Your task to perform on an android device: clear history in the chrome app Image 0: 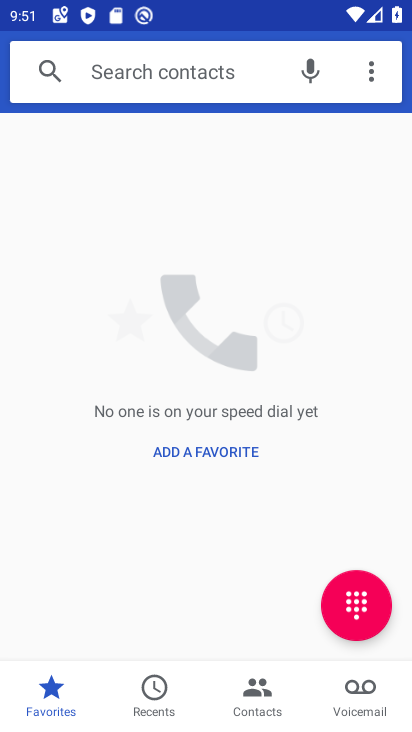
Step 0: press home button
Your task to perform on an android device: clear history in the chrome app Image 1: 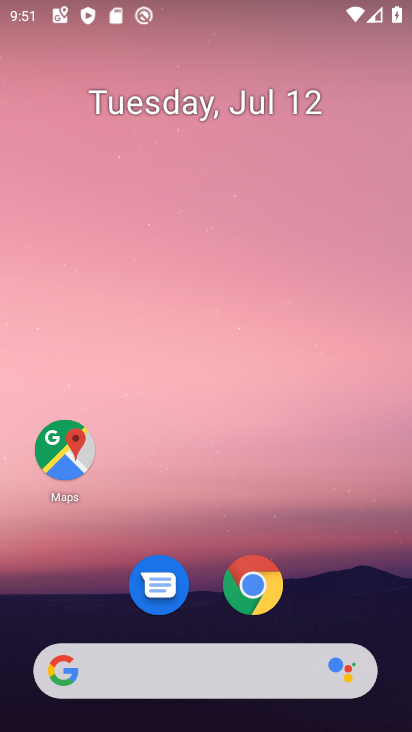
Step 1: click (241, 594)
Your task to perform on an android device: clear history in the chrome app Image 2: 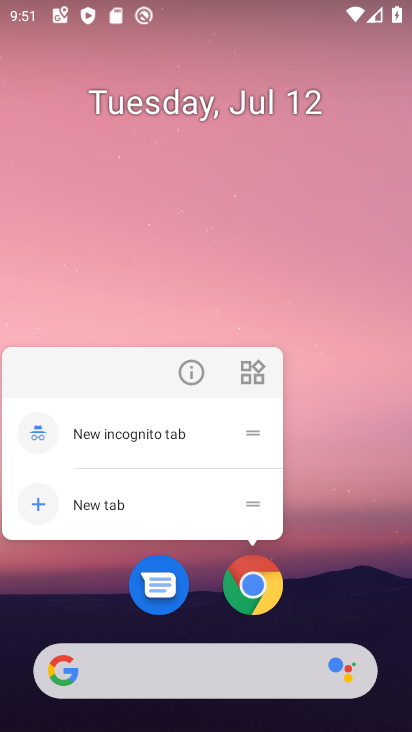
Step 2: click (246, 590)
Your task to perform on an android device: clear history in the chrome app Image 3: 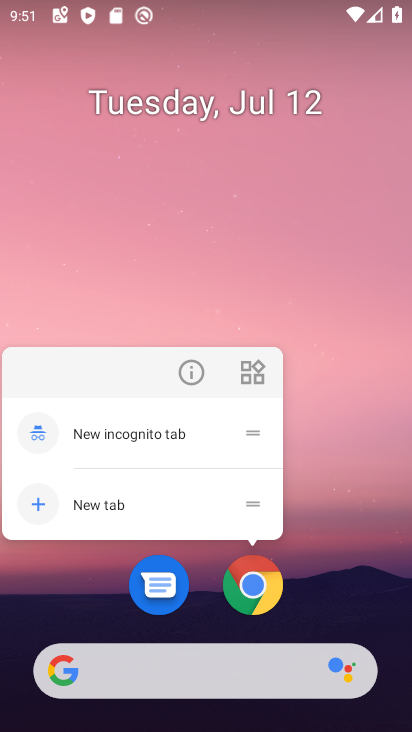
Step 3: click (252, 589)
Your task to perform on an android device: clear history in the chrome app Image 4: 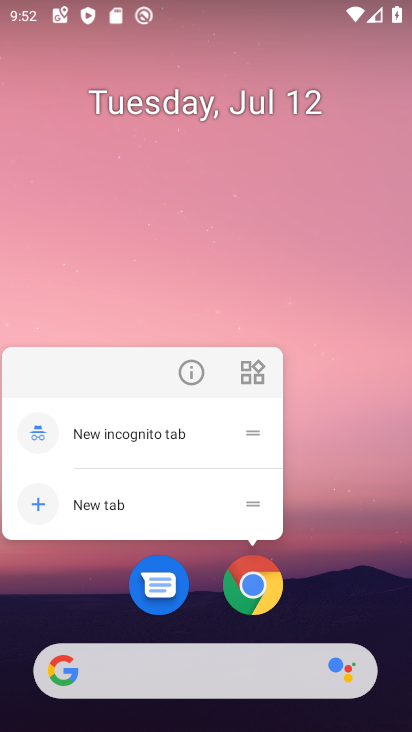
Step 4: click (252, 590)
Your task to perform on an android device: clear history in the chrome app Image 5: 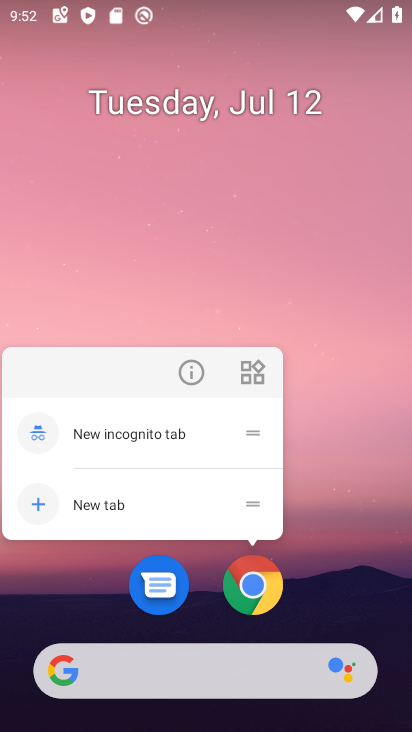
Step 5: click (252, 589)
Your task to perform on an android device: clear history in the chrome app Image 6: 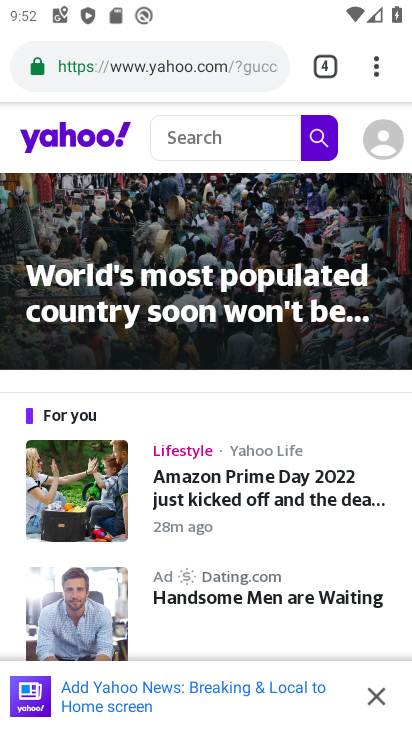
Step 6: drag from (369, 71) to (170, 377)
Your task to perform on an android device: clear history in the chrome app Image 7: 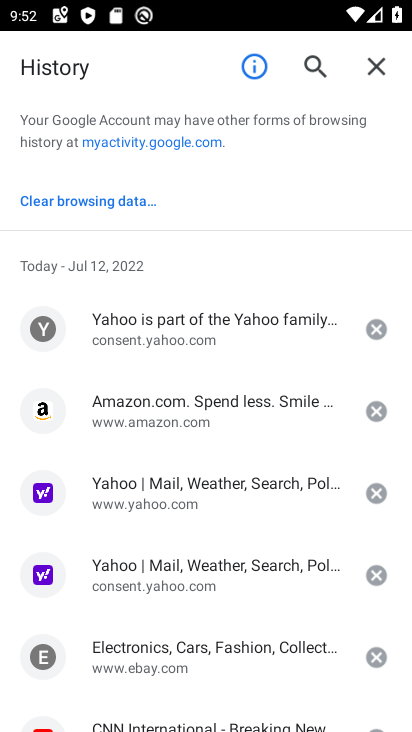
Step 7: click (107, 200)
Your task to perform on an android device: clear history in the chrome app Image 8: 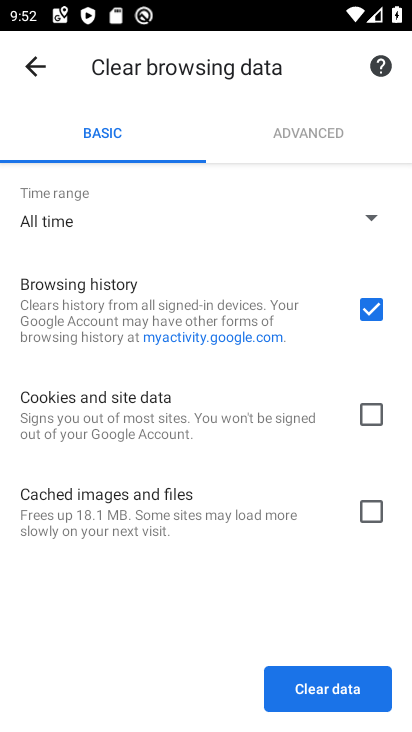
Step 8: click (378, 418)
Your task to perform on an android device: clear history in the chrome app Image 9: 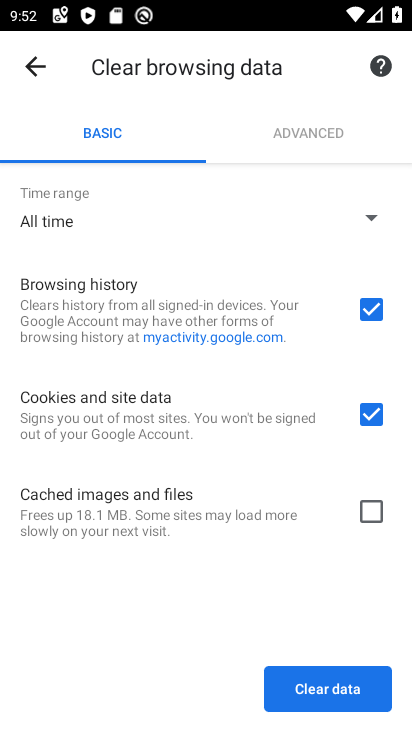
Step 9: click (376, 506)
Your task to perform on an android device: clear history in the chrome app Image 10: 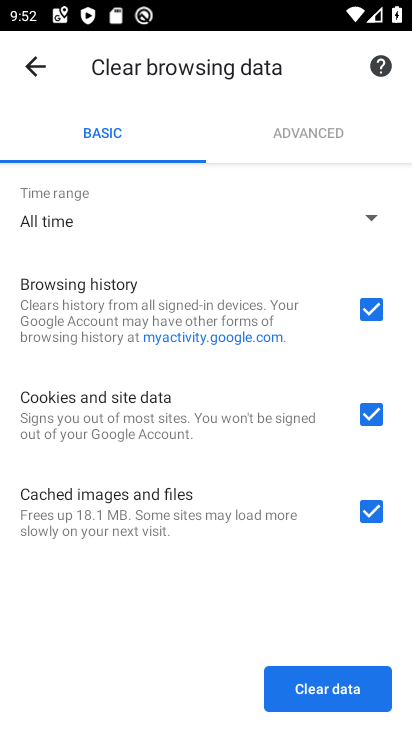
Step 10: click (335, 691)
Your task to perform on an android device: clear history in the chrome app Image 11: 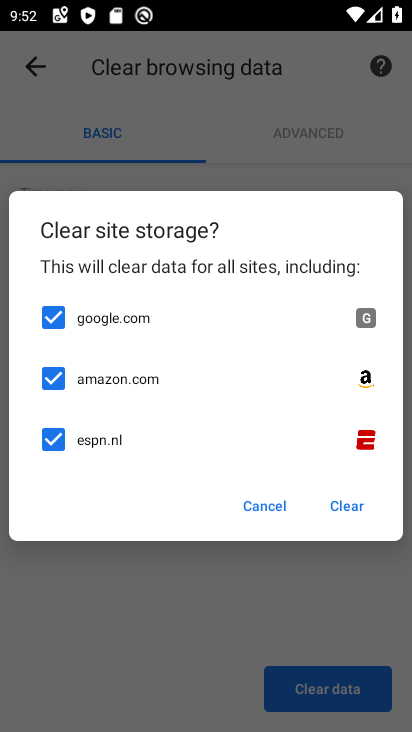
Step 11: click (348, 505)
Your task to perform on an android device: clear history in the chrome app Image 12: 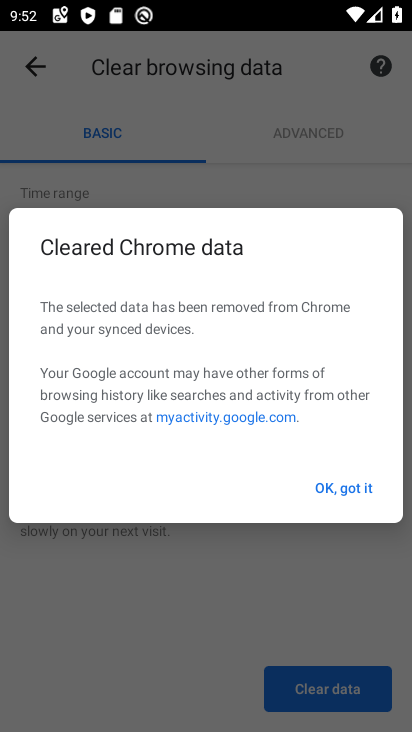
Step 12: click (346, 488)
Your task to perform on an android device: clear history in the chrome app Image 13: 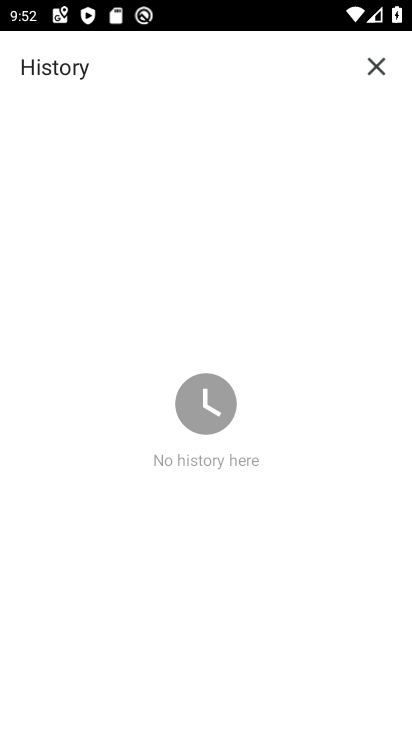
Step 13: task complete